Your task to perform on an android device: Go to location settings Image 0: 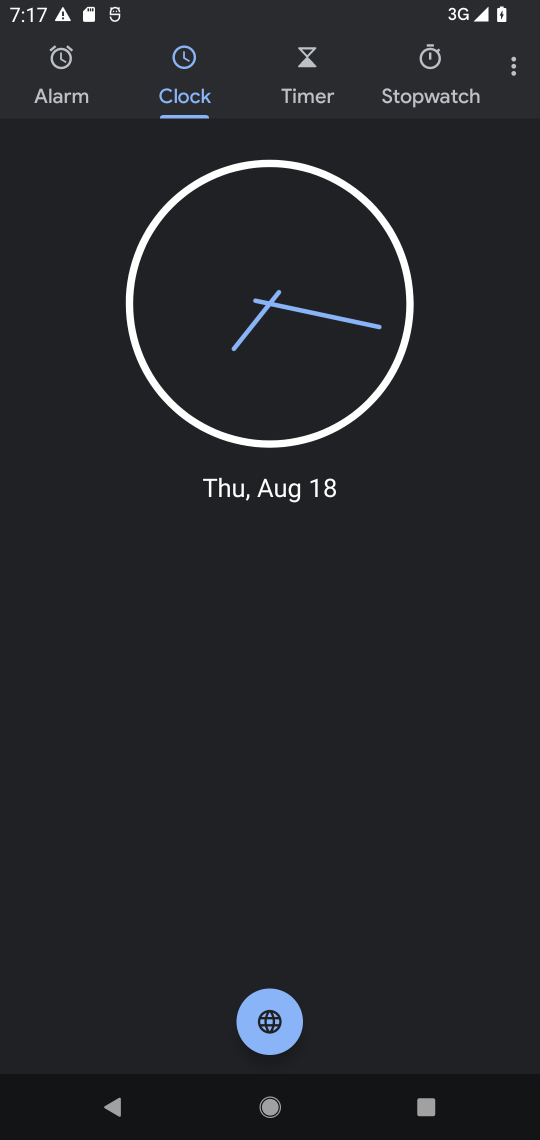
Step 0: press home button
Your task to perform on an android device: Go to location settings Image 1: 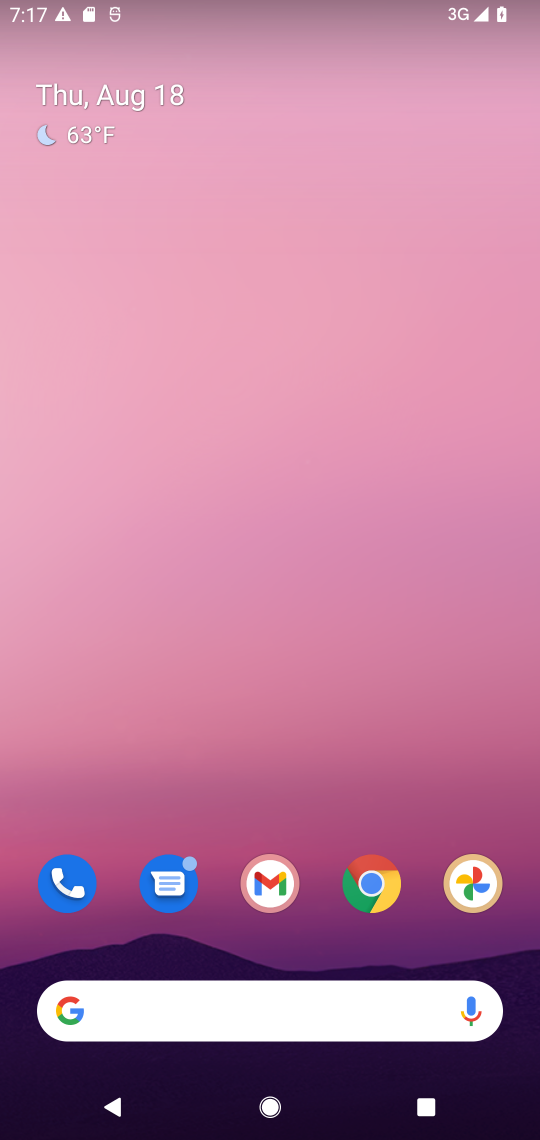
Step 1: drag from (49, 1104) to (231, 328)
Your task to perform on an android device: Go to location settings Image 2: 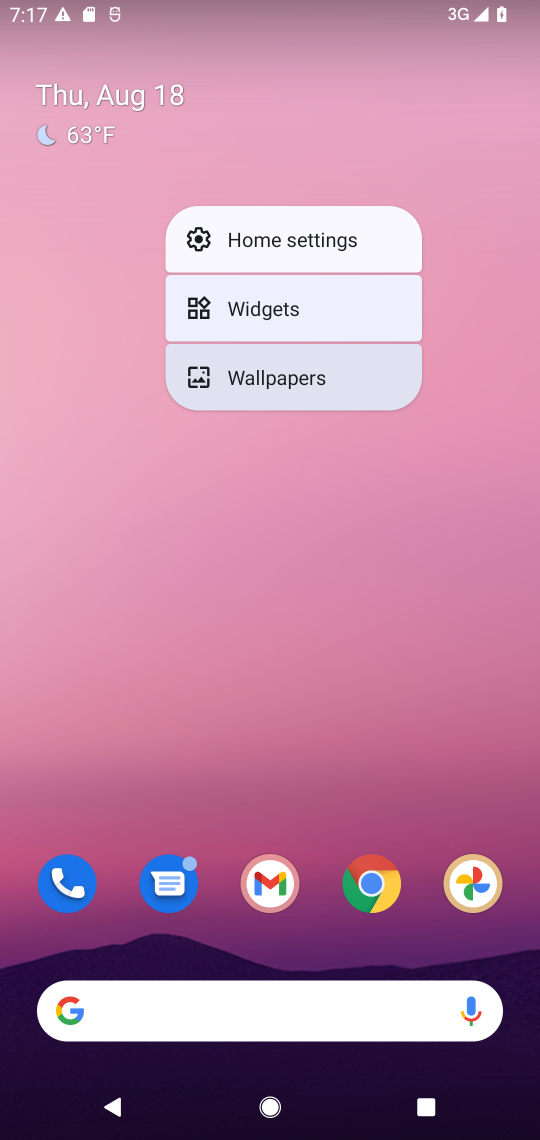
Step 2: drag from (58, 1106) to (126, 403)
Your task to perform on an android device: Go to location settings Image 3: 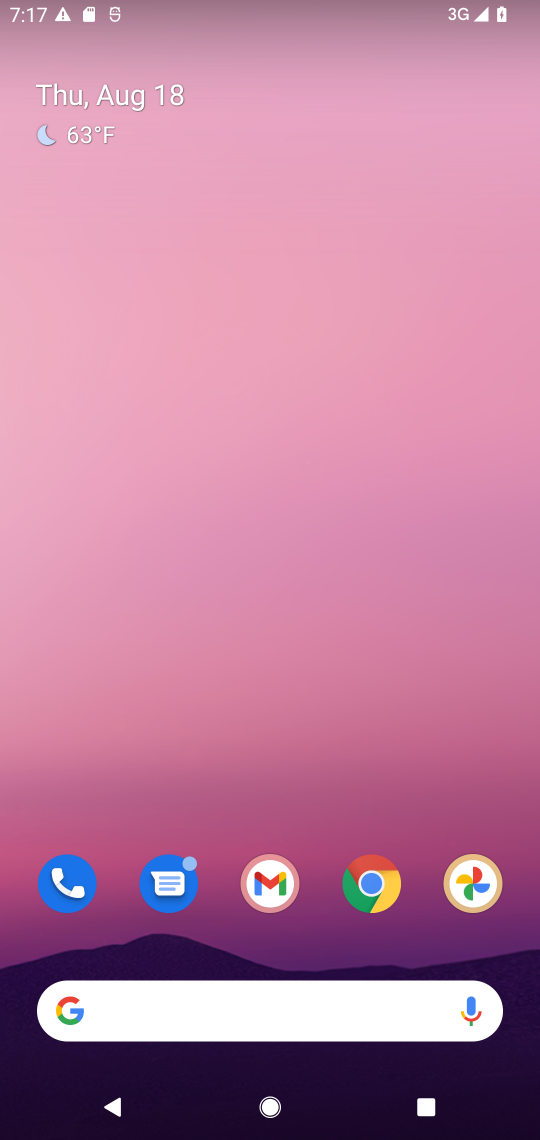
Step 3: drag from (35, 1094) to (33, 239)
Your task to perform on an android device: Go to location settings Image 4: 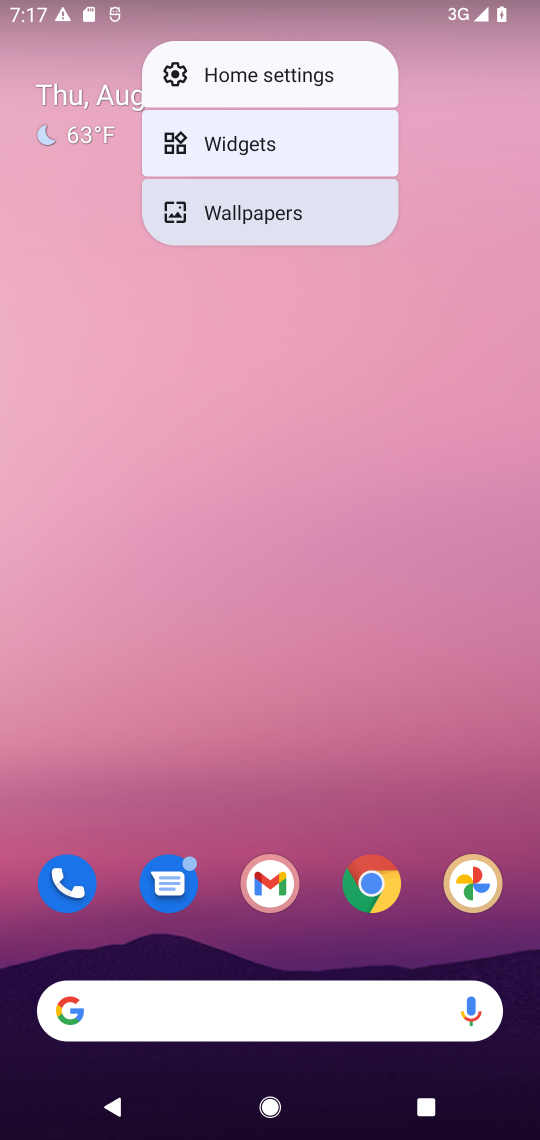
Step 4: drag from (51, 1109) to (131, 338)
Your task to perform on an android device: Go to location settings Image 5: 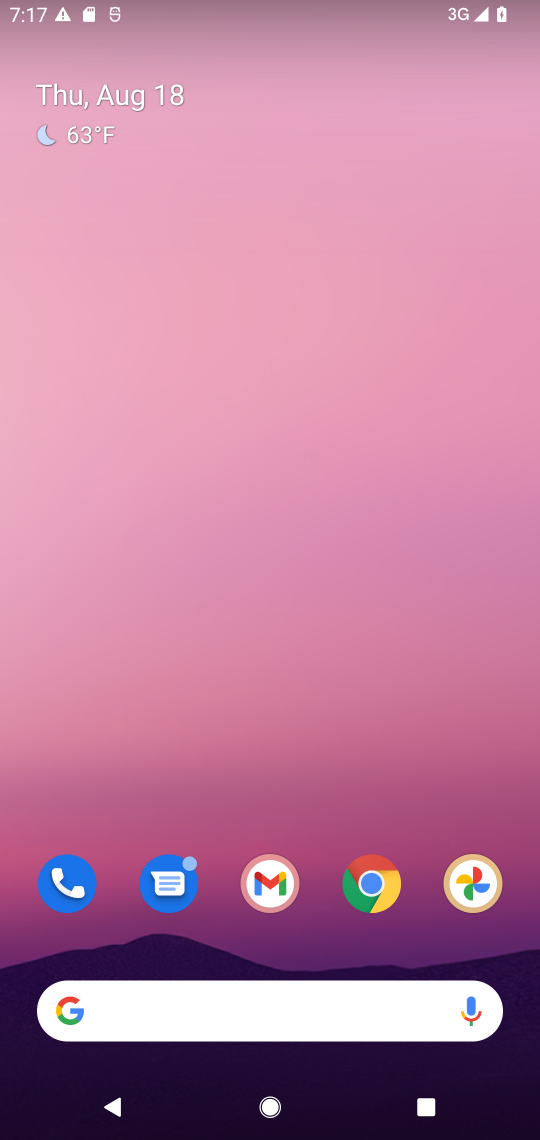
Step 5: drag from (51, 1068) to (298, 298)
Your task to perform on an android device: Go to location settings Image 6: 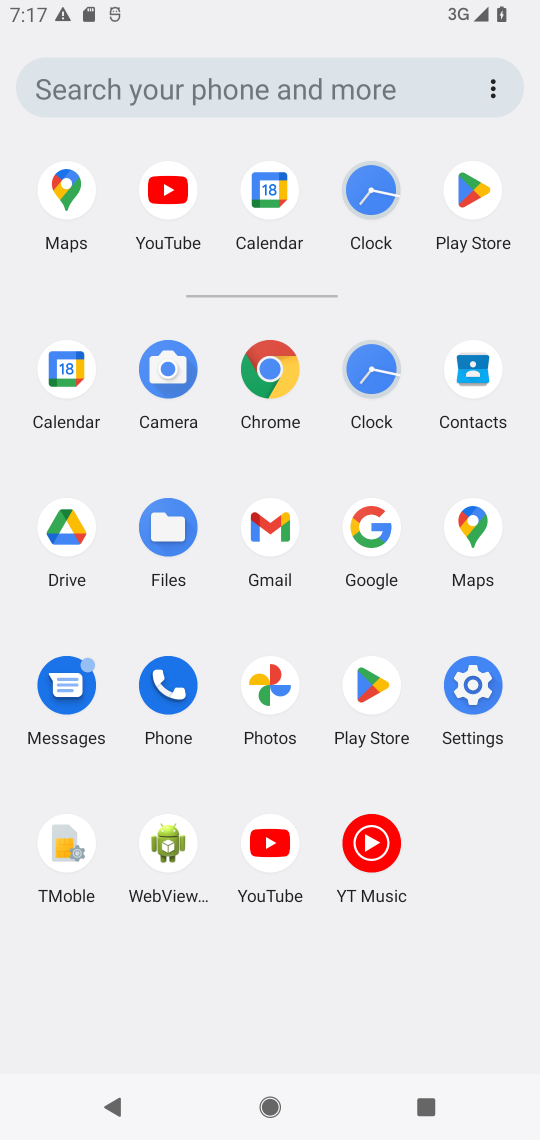
Step 6: click (460, 689)
Your task to perform on an android device: Go to location settings Image 7: 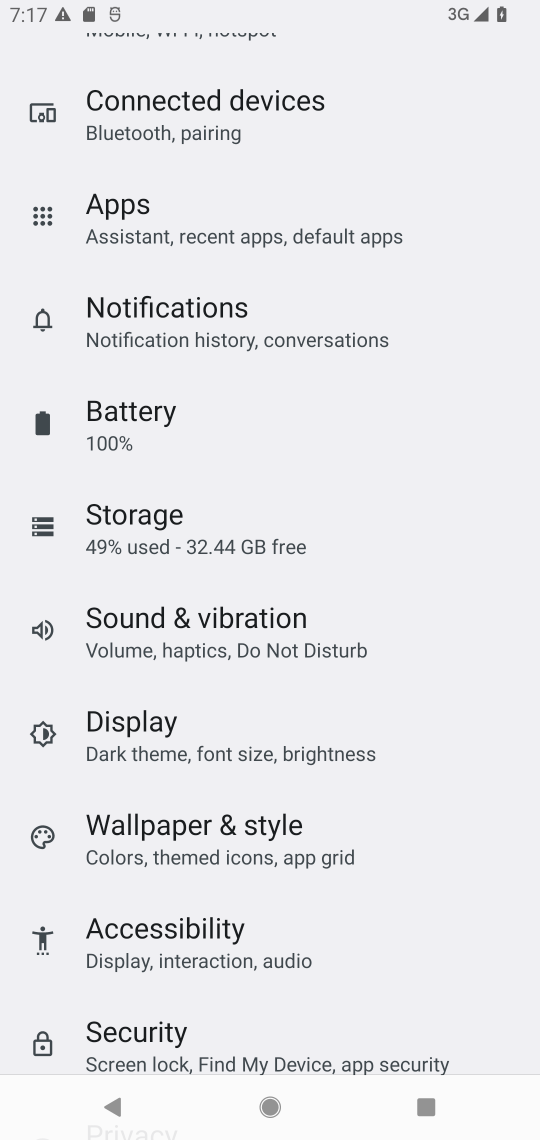
Step 7: drag from (446, 1001) to (475, 263)
Your task to perform on an android device: Go to location settings Image 8: 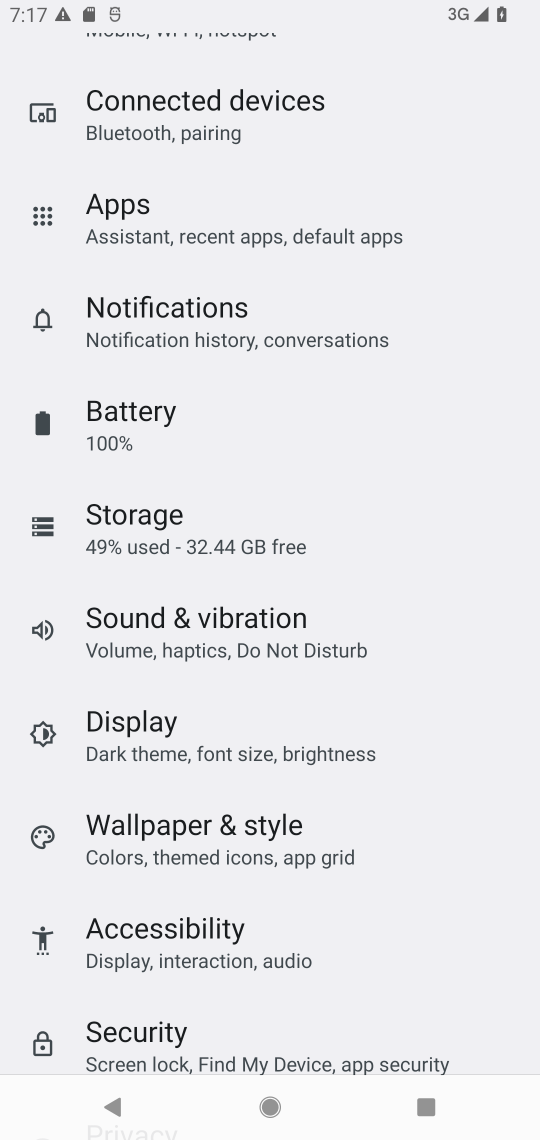
Step 8: drag from (424, 940) to (407, 109)
Your task to perform on an android device: Go to location settings Image 9: 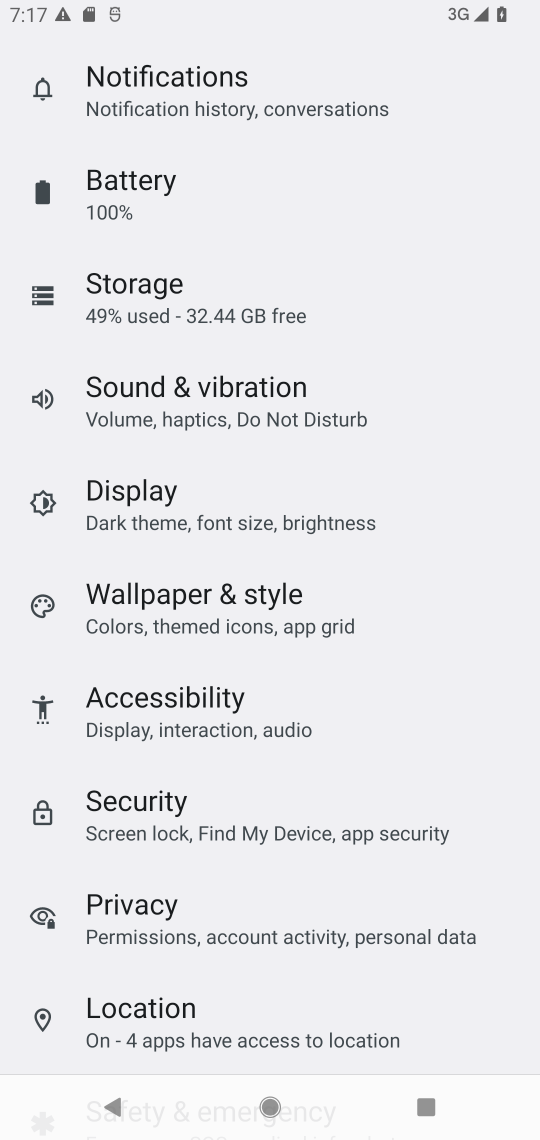
Step 9: click (143, 1024)
Your task to perform on an android device: Go to location settings Image 10: 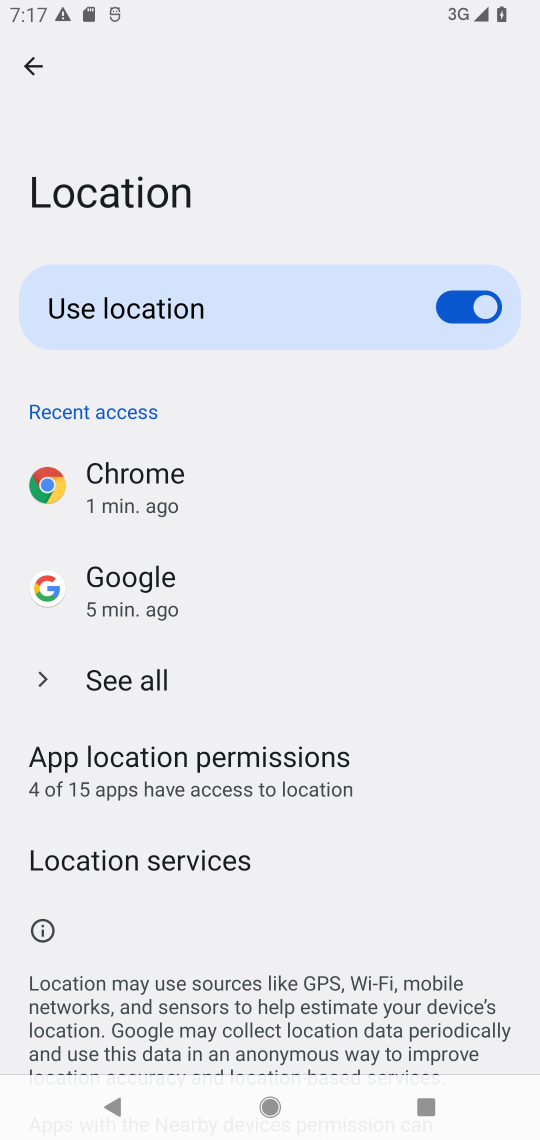
Step 10: task complete